Your task to perform on an android device: toggle priority inbox in the gmail app Image 0: 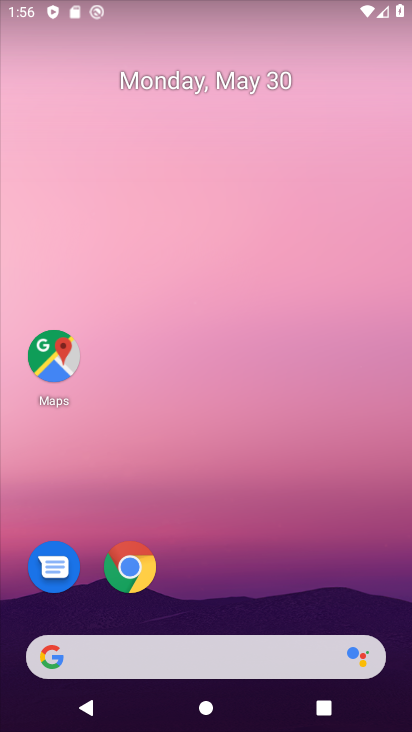
Step 0: drag from (228, 577) to (295, 269)
Your task to perform on an android device: toggle priority inbox in the gmail app Image 1: 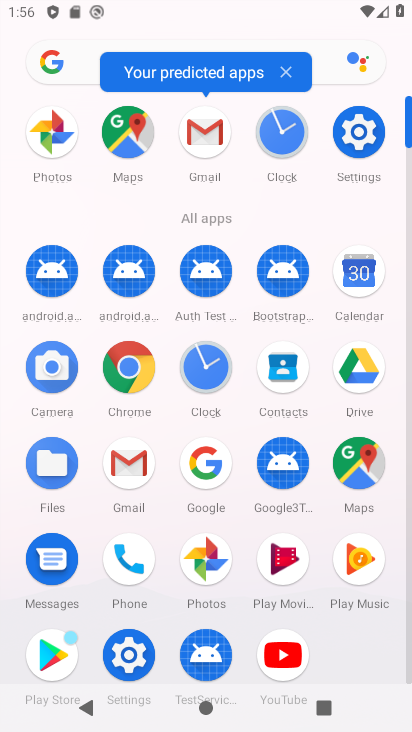
Step 1: click (139, 464)
Your task to perform on an android device: toggle priority inbox in the gmail app Image 2: 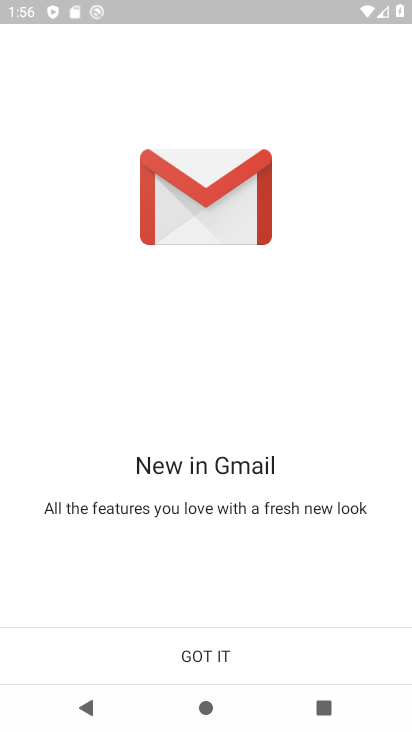
Step 2: click (181, 645)
Your task to perform on an android device: toggle priority inbox in the gmail app Image 3: 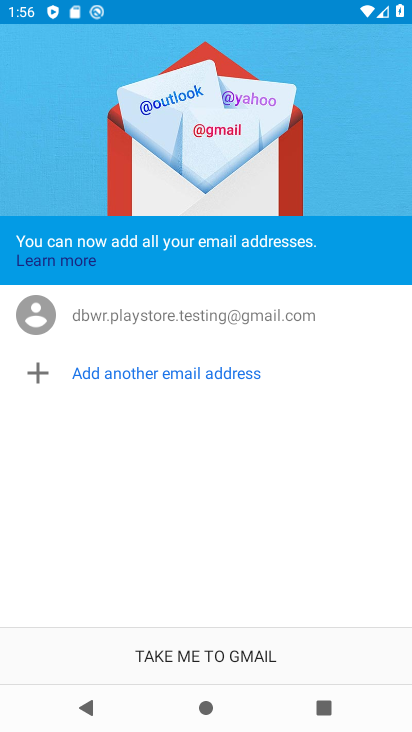
Step 3: click (185, 649)
Your task to perform on an android device: toggle priority inbox in the gmail app Image 4: 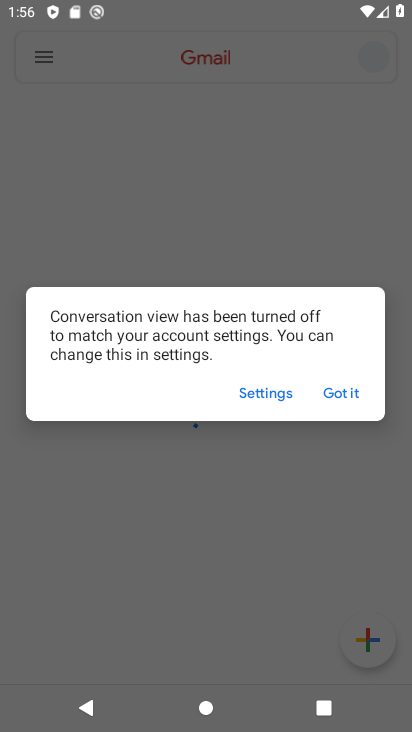
Step 4: click (344, 391)
Your task to perform on an android device: toggle priority inbox in the gmail app Image 5: 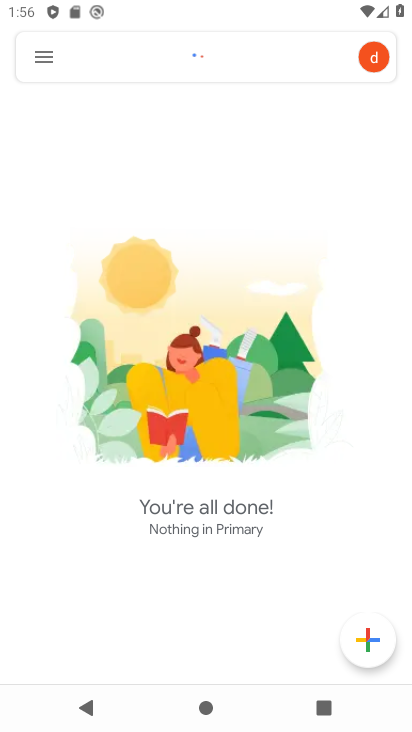
Step 5: click (26, 62)
Your task to perform on an android device: toggle priority inbox in the gmail app Image 6: 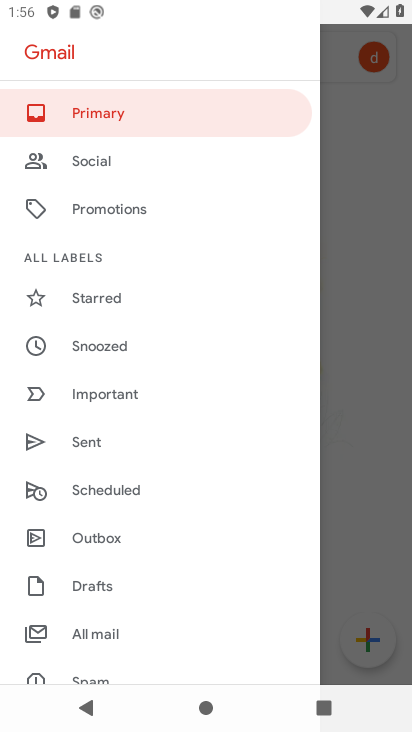
Step 6: drag from (100, 644) to (134, 209)
Your task to perform on an android device: toggle priority inbox in the gmail app Image 7: 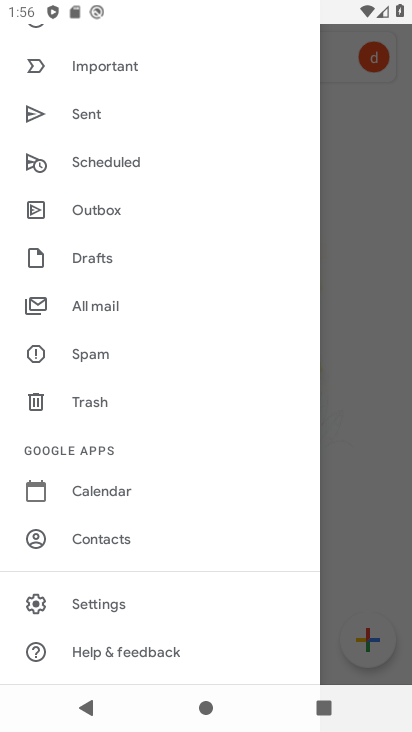
Step 7: click (100, 603)
Your task to perform on an android device: toggle priority inbox in the gmail app Image 8: 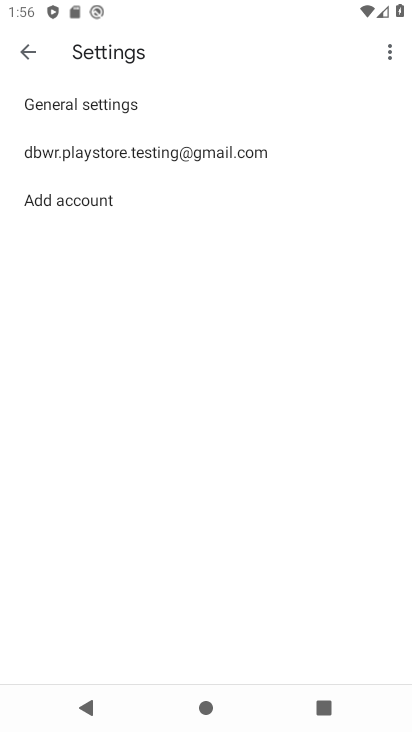
Step 8: click (84, 144)
Your task to perform on an android device: toggle priority inbox in the gmail app Image 9: 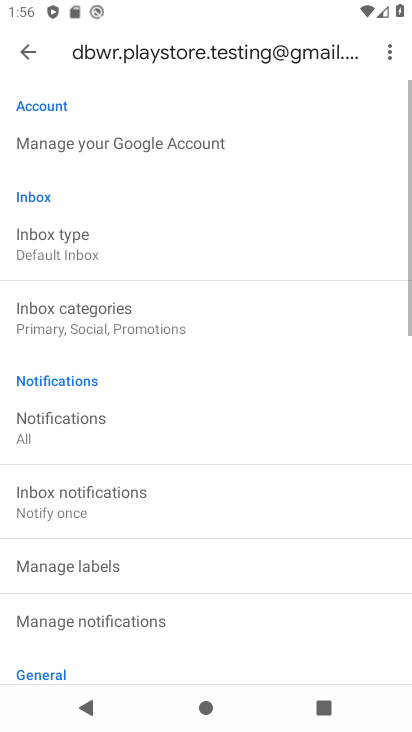
Step 9: click (87, 251)
Your task to perform on an android device: toggle priority inbox in the gmail app Image 10: 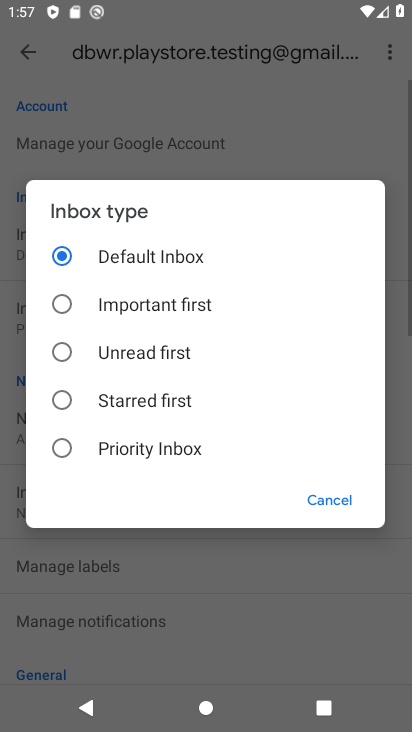
Step 10: click (142, 447)
Your task to perform on an android device: toggle priority inbox in the gmail app Image 11: 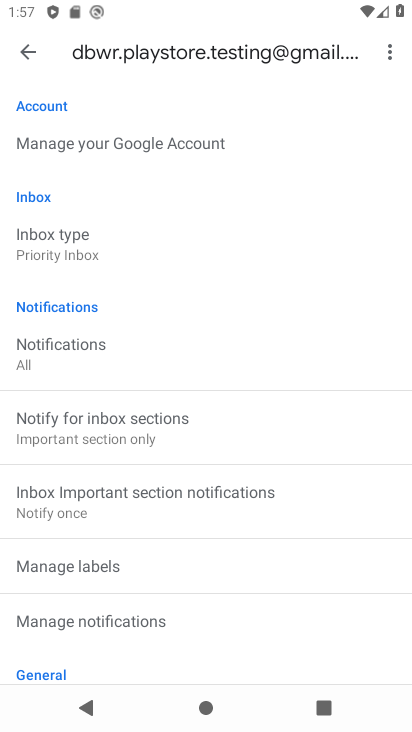
Step 11: task complete